Your task to perform on an android device: turn off smart reply in the gmail app Image 0: 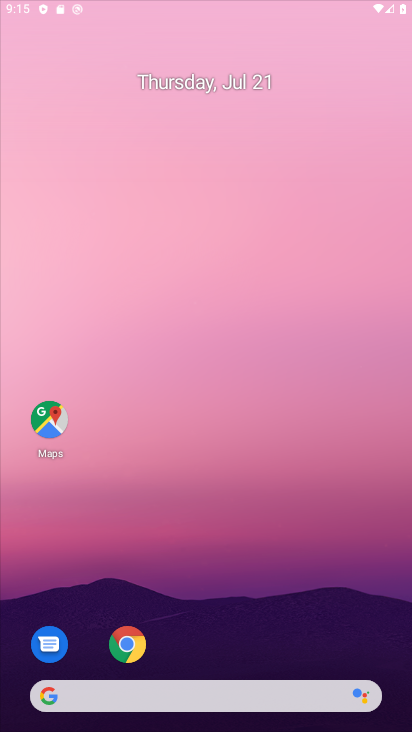
Step 0: click (166, 473)
Your task to perform on an android device: turn off smart reply in the gmail app Image 1: 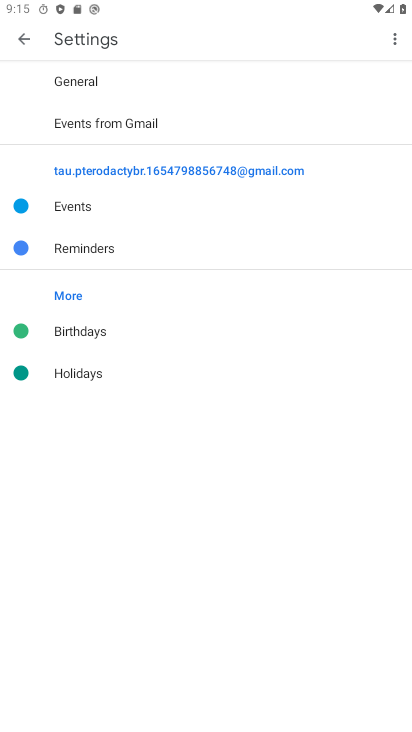
Step 1: click (30, 31)
Your task to perform on an android device: turn off smart reply in the gmail app Image 2: 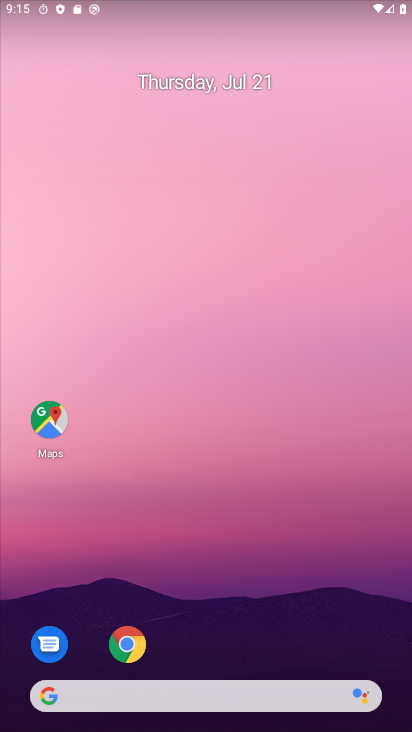
Step 2: drag from (223, 595) to (269, 318)
Your task to perform on an android device: turn off smart reply in the gmail app Image 3: 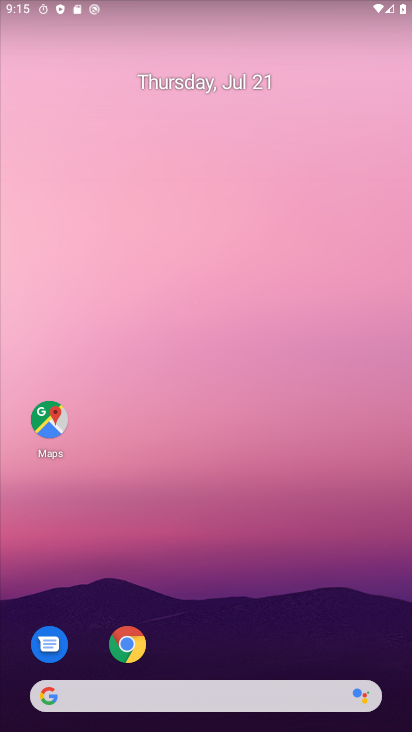
Step 3: drag from (253, 564) to (246, 220)
Your task to perform on an android device: turn off smart reply in the gmail app Image 4: 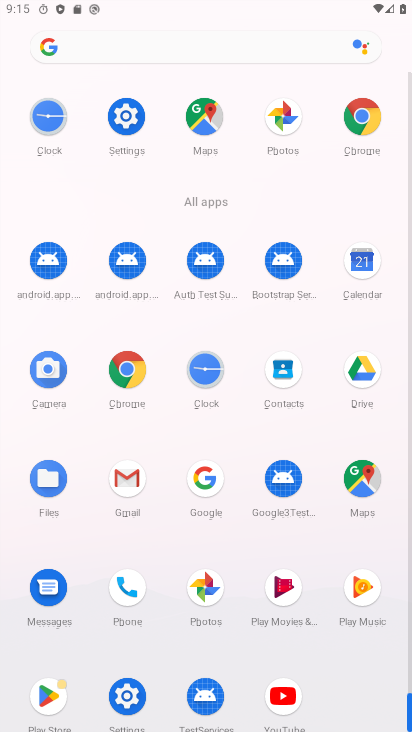
Step 4: click (124, 476)
Your task to perform on an android device: turn off smart reply in the gmail app Image 5: 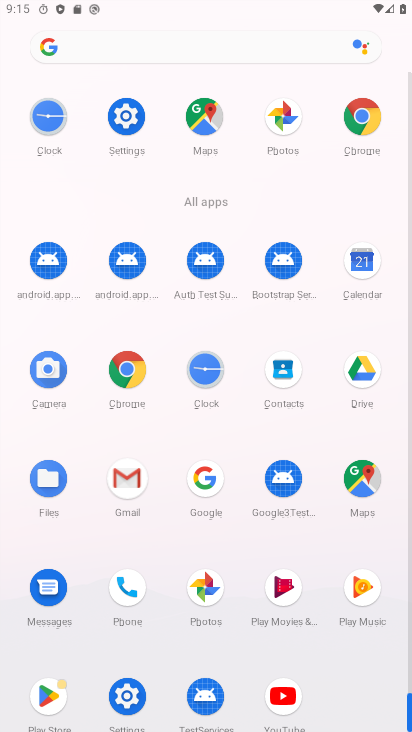
Step 5: click (124, 476)
Your task to perform on an android device: turn off smart reply in the gmail app Image 6: 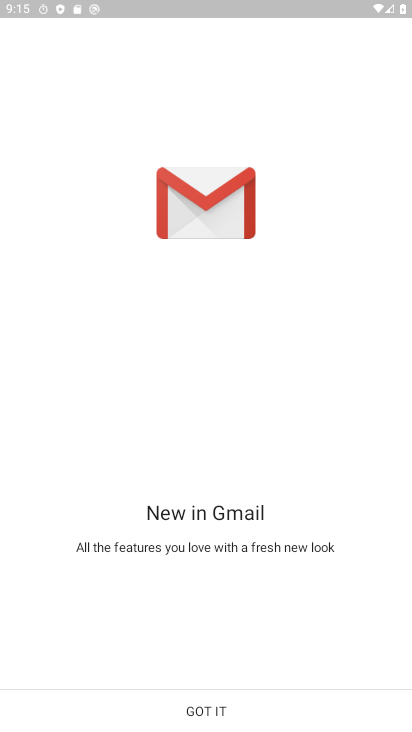
Step 6: click (221, 711)
Your task to perform on an android device: turn off smart reply in the gmail app Image 7: 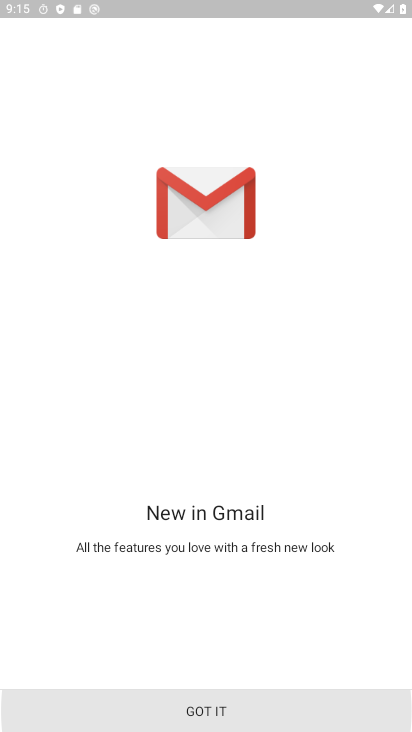
Step 7: click (217, 712)
Your task to perform on an android device: turn off smart reply in the gmail app Image 8: 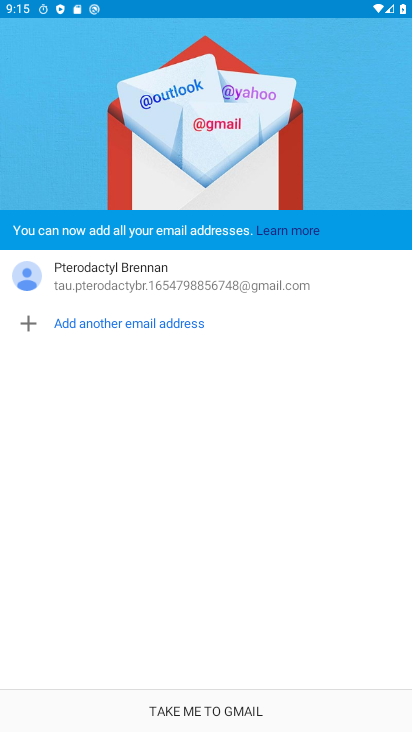
Step 8: click (244, 702)
Your task to perform on an android device: turn off smart reply in the gmail app Image 9: 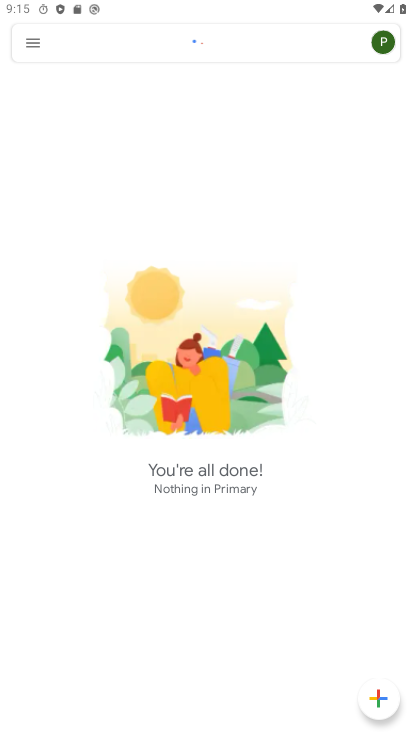
Step 9: click (35, 44)
Your task to perform on an android device: turn off smart reply in the gmail app Image 10: 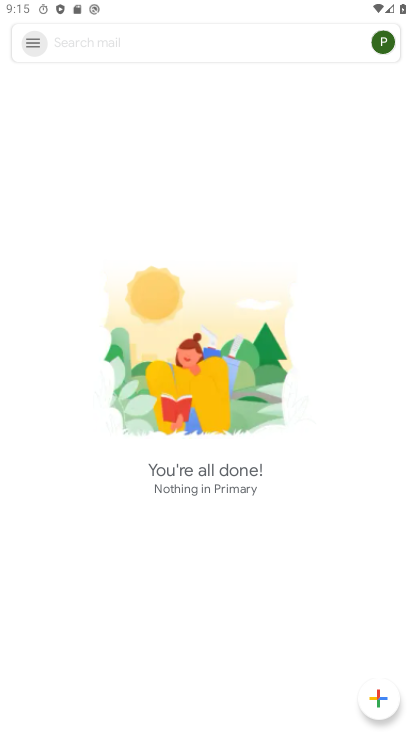
Step 10: click (35, 44)
Your task to perform on an android device: turn off smart reply in the gmail app Image 11: 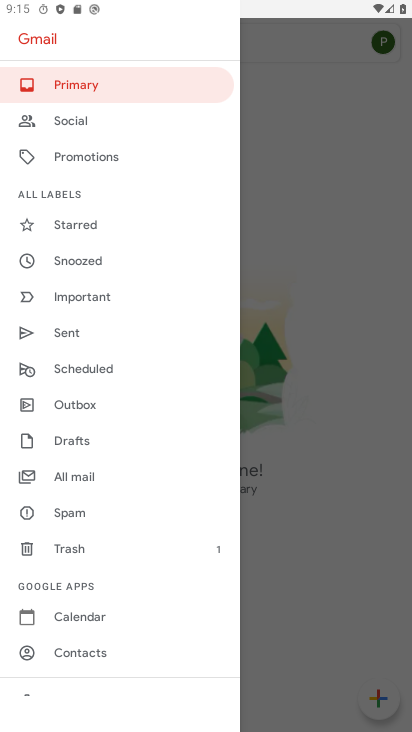
Step 11: drag from (97, 625) to (99, 153)
Your task to perform on an android device: turn off smart reply in the gmail app Image 12: 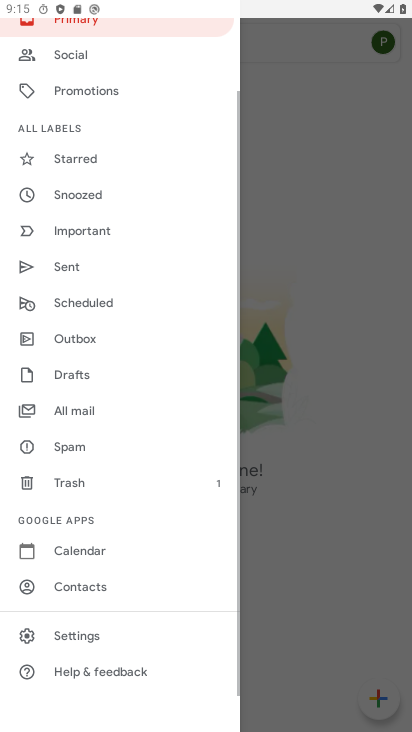
Step 12: click (60, 638)
Your task to perform on an android device: turn off smart reply in the gmail app Image 13: 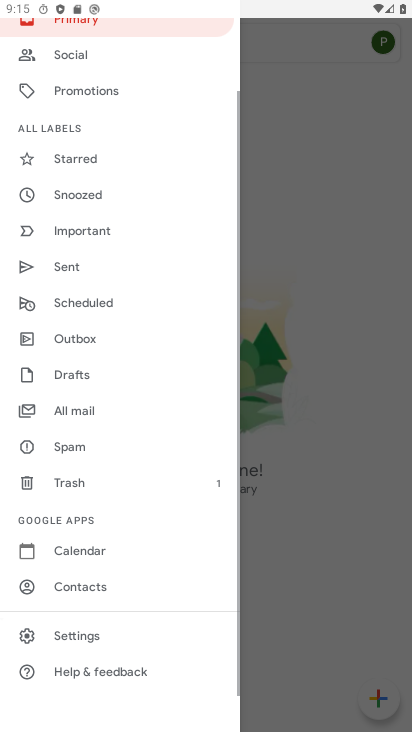
Step 13: click (63, 635)
Your task to perform on an android device: turn off smart reply in the gmail app Image 14: 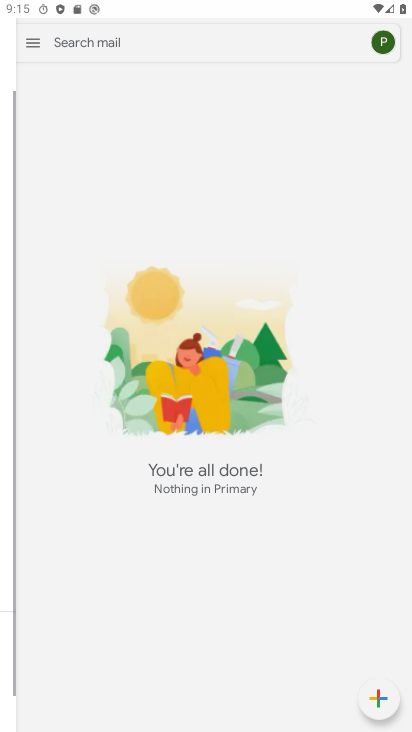
Step 14: click (67, 634)
Your task to perform on an android device: turn off smart reply in the gmail app Image 15: 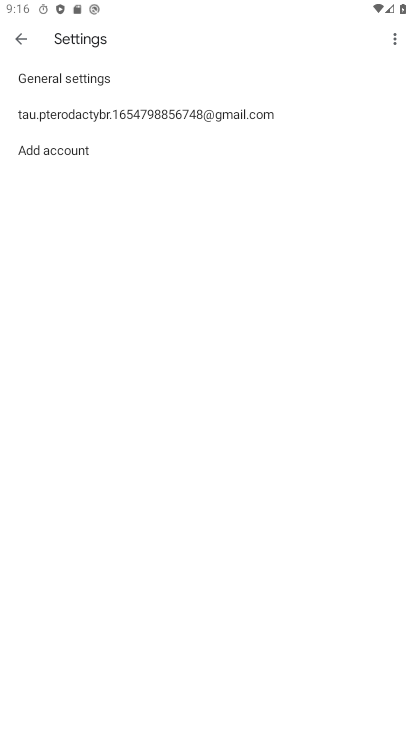
Step 15: click (68, 110)
Your task to perform on an android device: turn off smart reply in the gmail app Image 16: 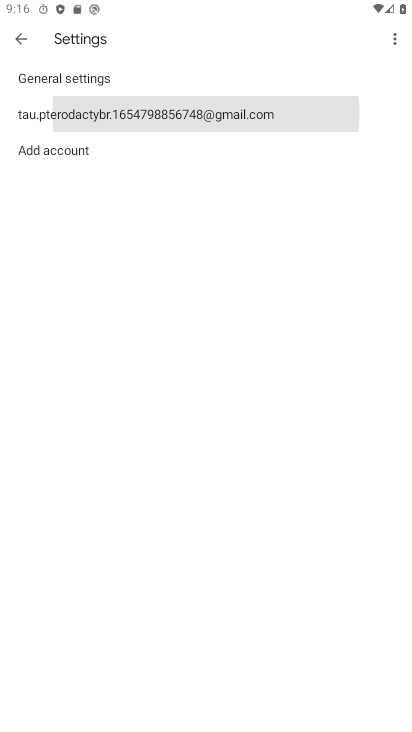
Step 16: click (68, 110)
Your task to perform on an android device: turn off smart reply in the gmail app Image 17: 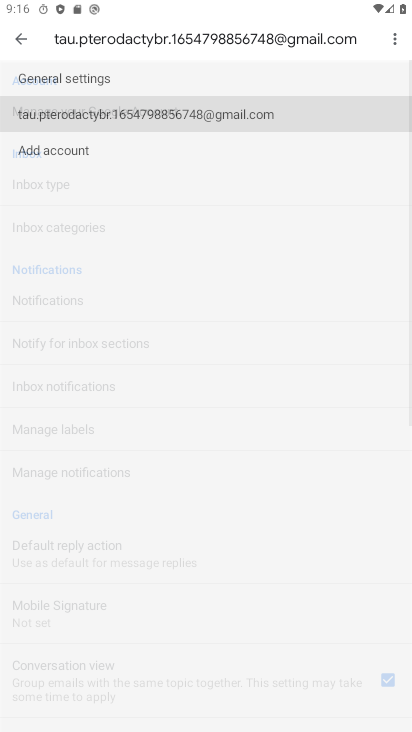
Step 17: click (68, 110)
Your task to perform on an android device: turn off smart reply in the gmail app Image 18: 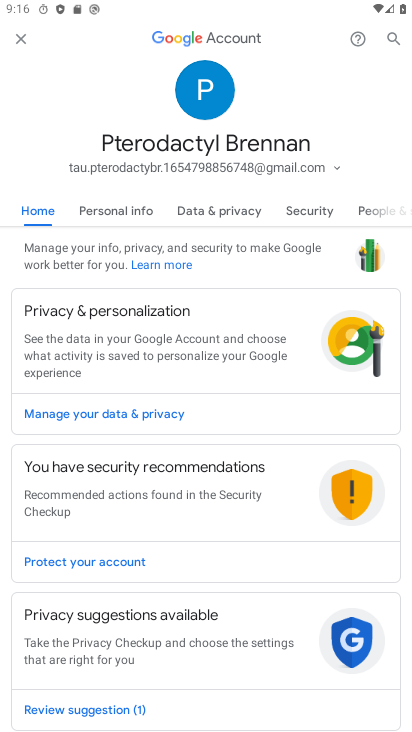
Step 18: press back button
Your task to perform on an android device: turn off smart reply in the gmail app Image 19: 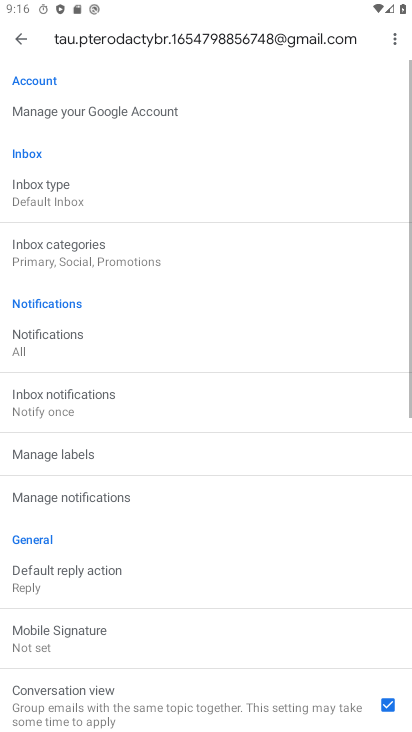
Step 19: click (18, 32)
Your task to perform on an android device: turn off smart reply in the gmail app Image 20: 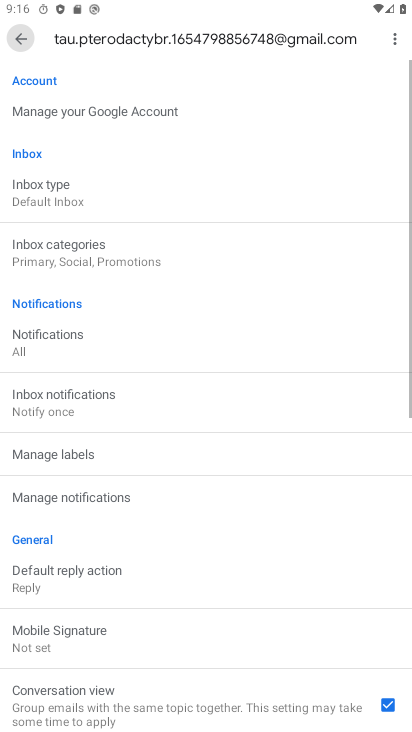
Step 20: click (17, 33)
Your task to perform on an android device: turn off smart reply in the gmail app Image 21: 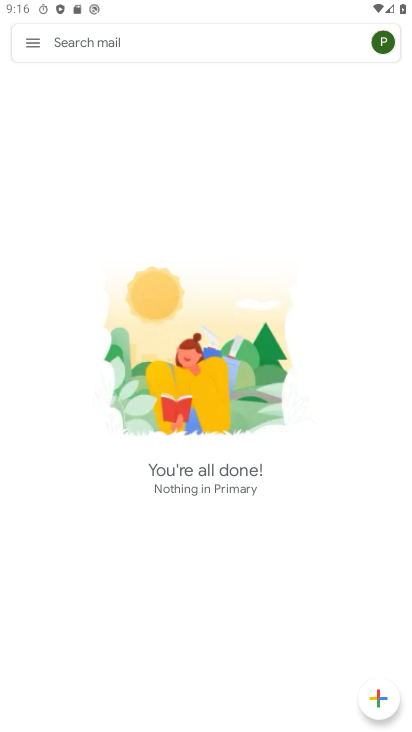
Step 21: click (37, 38)
Your task to perform on an android device: turn off smart reply in the gmail app Image 22: 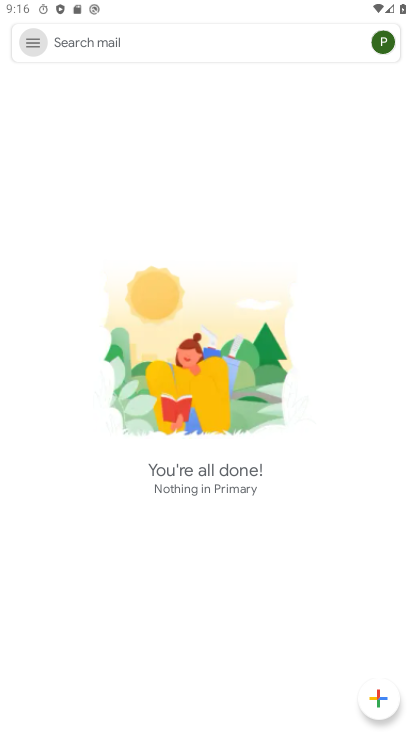
Step 22: click (36, 37)
Your task to perform on an android device: turn off smart reply in the gmail app Image 23: 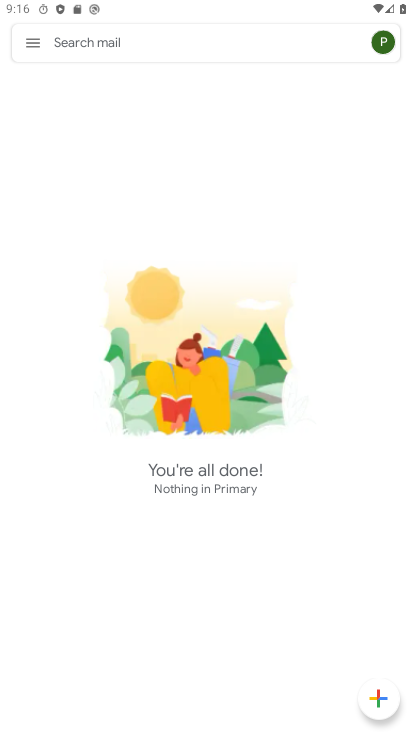
Step 23: click (34, 46)
Your task to perform on an android device: turn off smart reply in the gmail app Image 24: 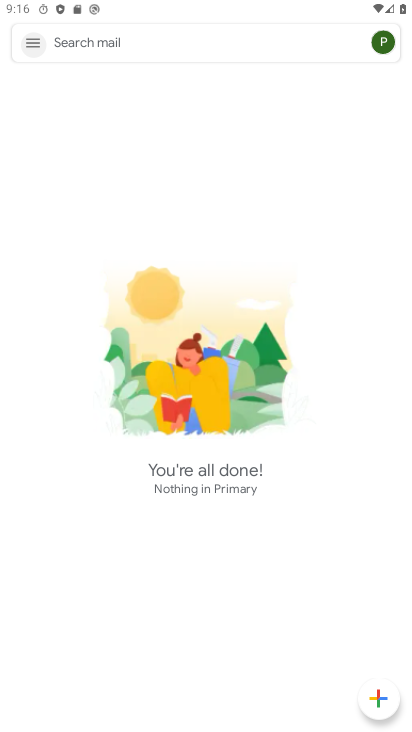
Step 24: click (33, 45)
Your task to perform on an android device: turn off smart reply in the gmail app Image 25: 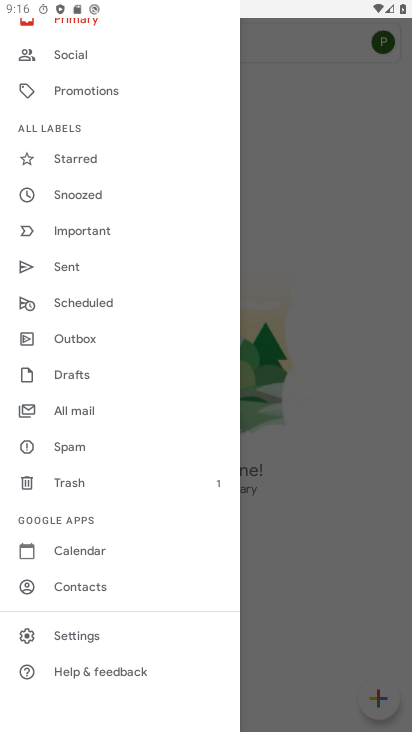
Step 25: click (71, 643)
Your task to perform on an android device: turn off smart reply in the gmail app Image 26: 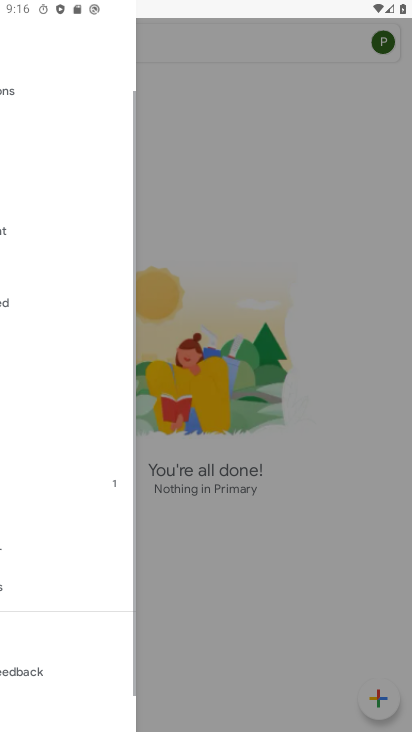
Step 26: click (72, 636)
Your task to perform on an android device: turn off smart reply in the gmail app Image 27: 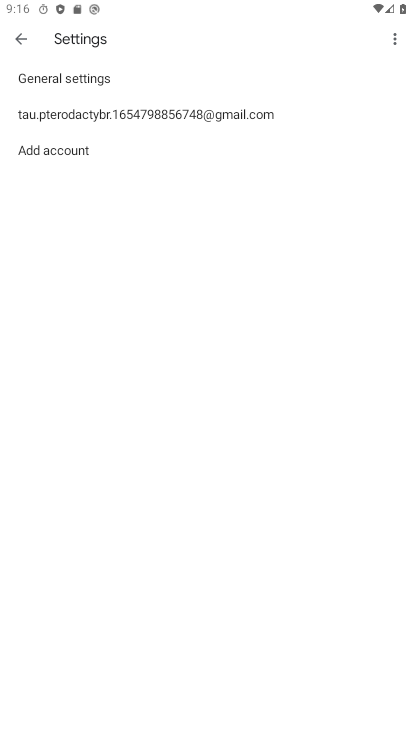
Step 27: click (66, 113)
Your task to perform on an android device: turn off smart reply in the gmail app Image 28: 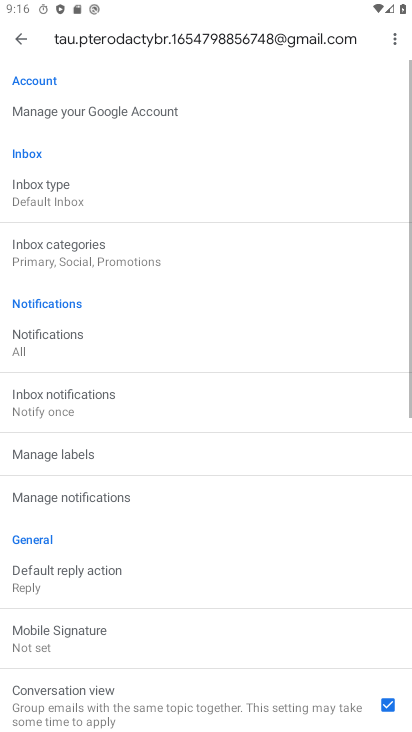
Step 28: drag from (116, 581) to (190, 241)
Your task to perform on an android device: turn off smart reply in the gmail app Image 29: 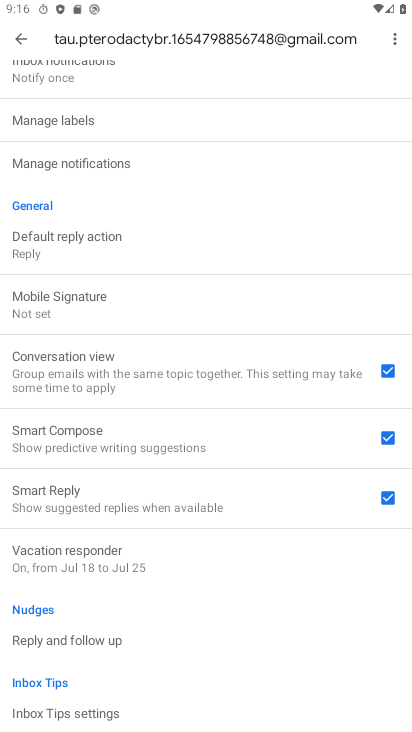
Step 29: click (387, 496)
Your task to perform on an android device: turn off smart reply in the gmail app Image 30: 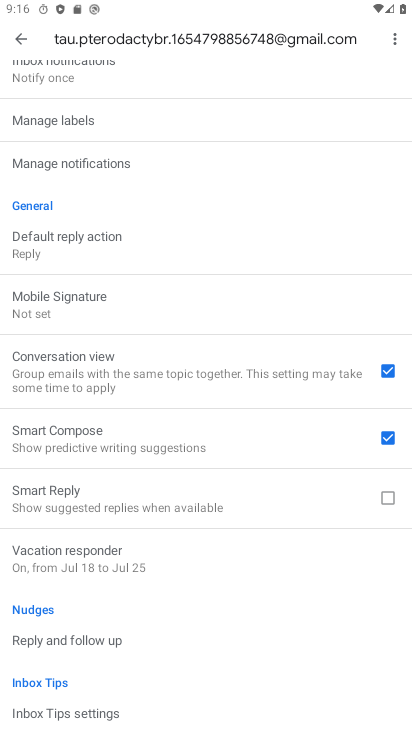
Step 30: task complete